Your task to perform on an android device: Open location settings Image 0: 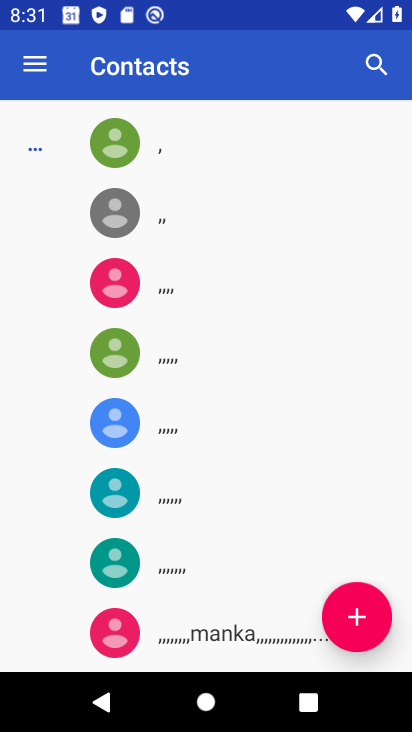
Step 0: press home button
Your task to perform on an android device: Open location settings Image 1: 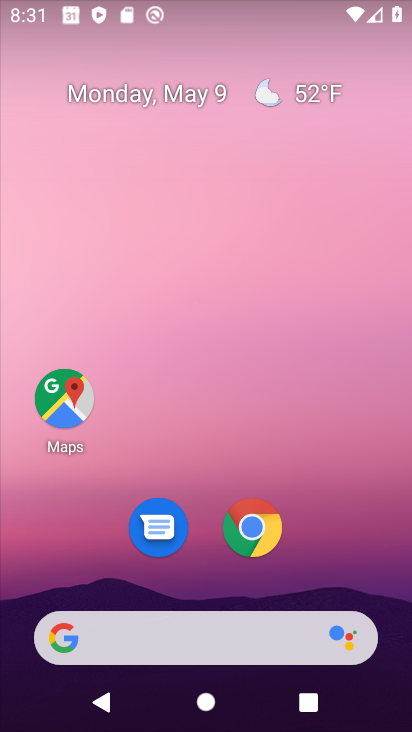
Step 1: drag from (216, 567) to (199, 51)
Your task to perform on an android device: Open location settings Image 2: 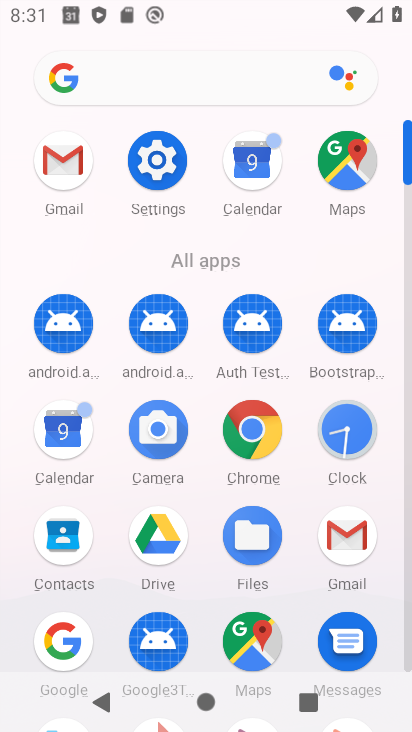
Step 2: click (155, 156)
Your task to perform on an android device: Open location settings Image 3: 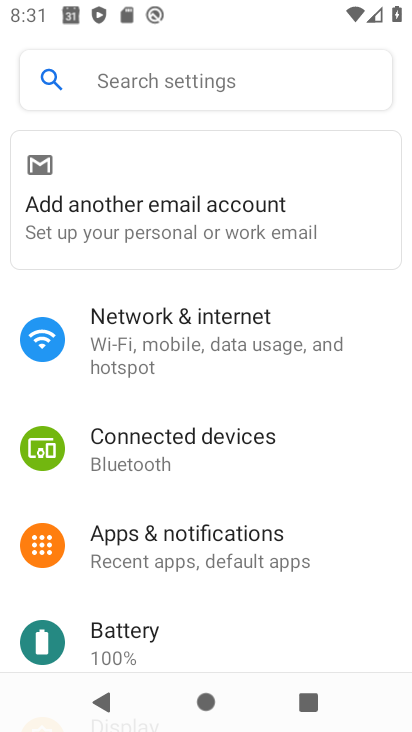
Step 3: drag from (241, 457) to (218, 191)
Your task to perform on an android device: Open location settings Image 4: 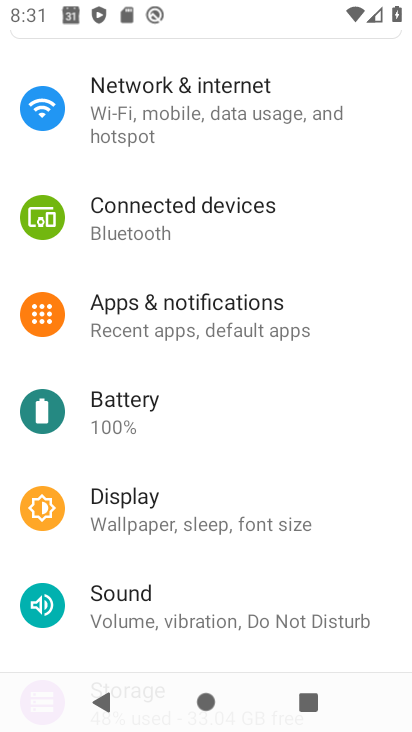
Step 4: drag from (220, 558) to (210, 83)
Your task to perform on an android device: Open location settings Image 5: 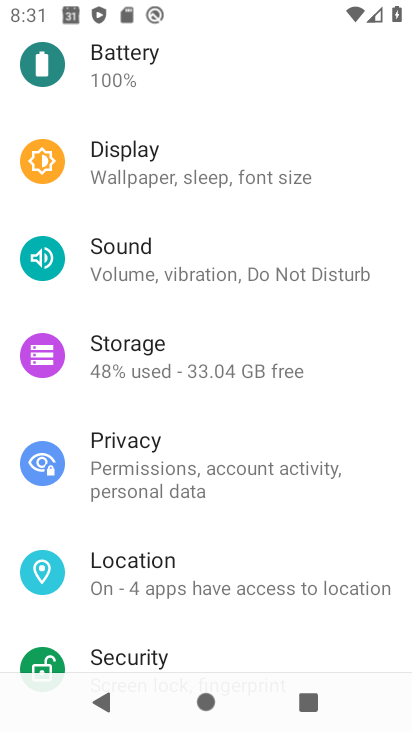
Step 5: click (154, 574)
Your task to perform on an android device: Open location settings Image 6: 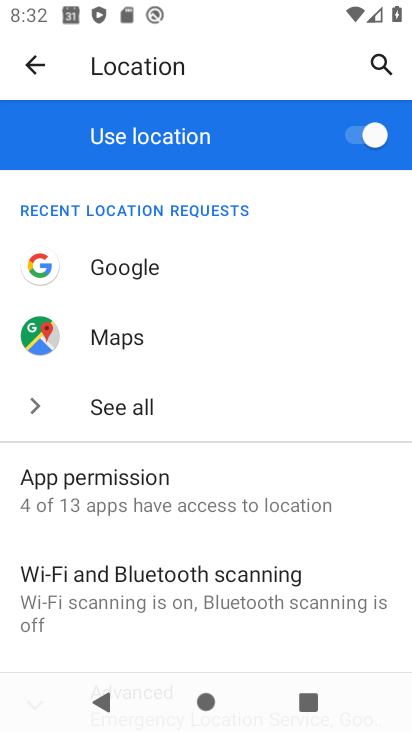
Step 6: task complete